Your task to perform on an android device: Open wifi settings Image 0: 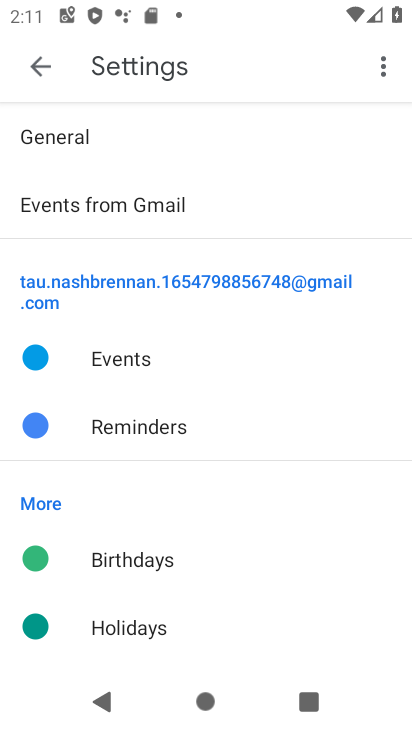
Step 0: press home button
Your task to perform on an android device: Open wifi settings Image 1: 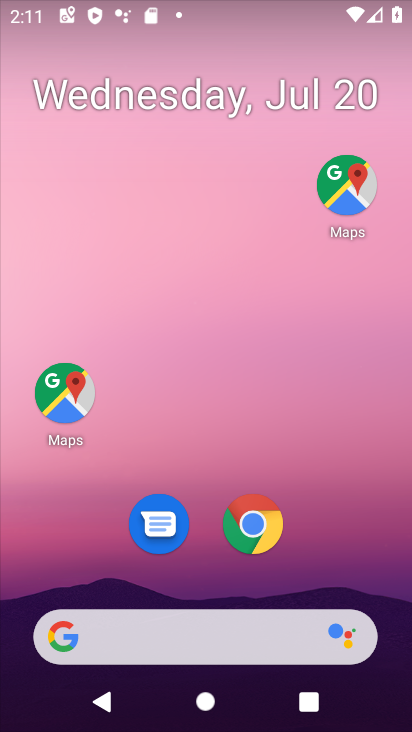
Step 1: drag from (323, 541) to (409, 55)
Your task to perform on an android device: Open wifi settings Image 2: 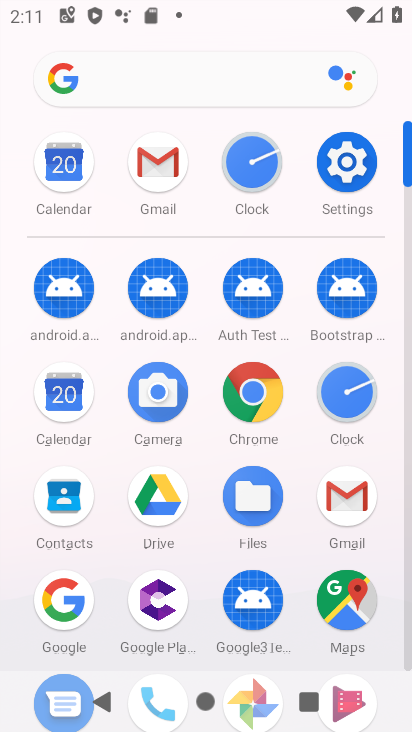
Step 2: click (346, 148)
Your task to perform on an android device: Open wifi settings Image 3: 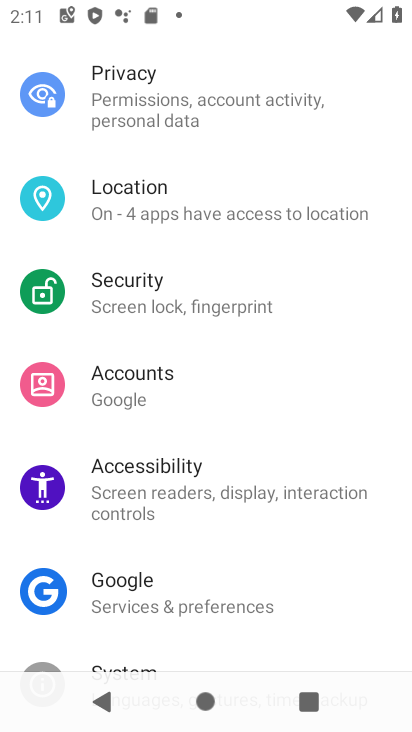
Step 3: drag from (244, 183) to (177, 552)
Your task to perform on an android device: Open wifi settings Image 4: 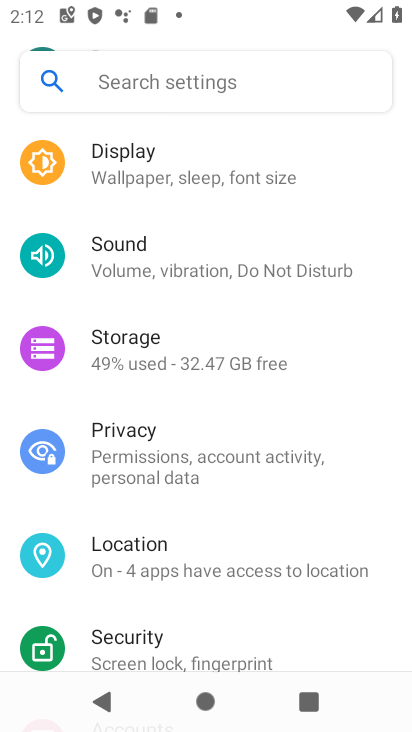
Step 4: drag from (213, 269) to (200, 570)
Your task to perform on an android device: Open wifi settings Image 5: 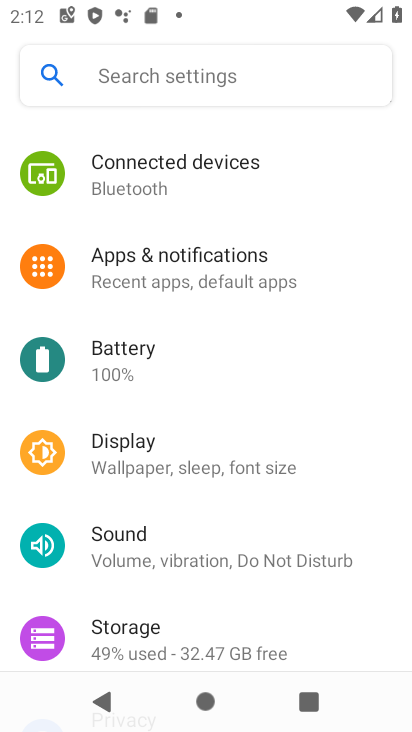
Step 5: drag from (201, 262) to (245, 540)
Your task to perform on an android device: Open wifi settings Image 6: 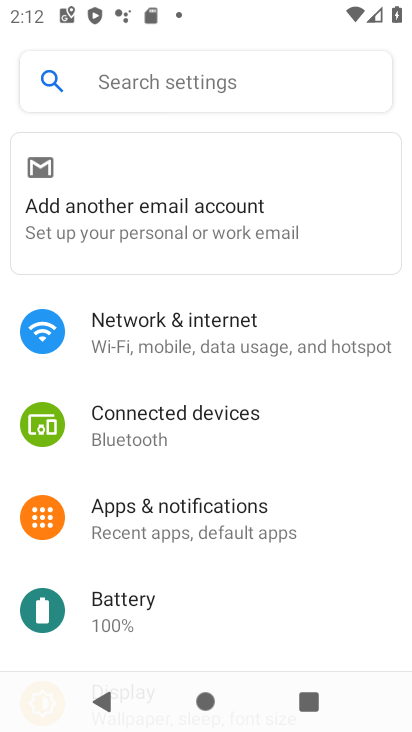
Step 6: click (219, 340)
Your task to perform on an android device: Open wifi settings Image 7: 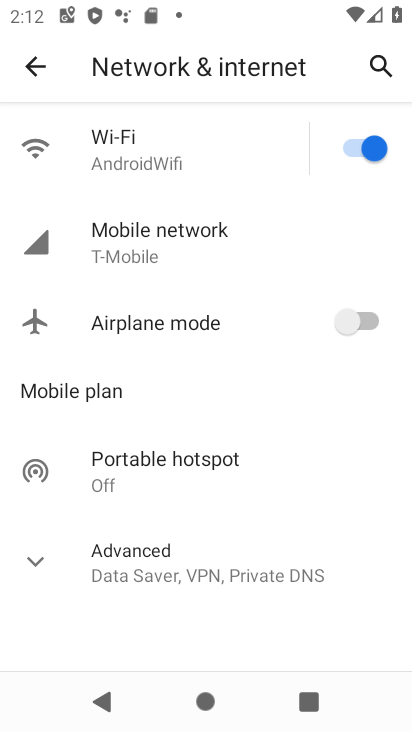
Step 7: click (179, 126)
Your task to perform on an android device: Open wifi settings Image 8: 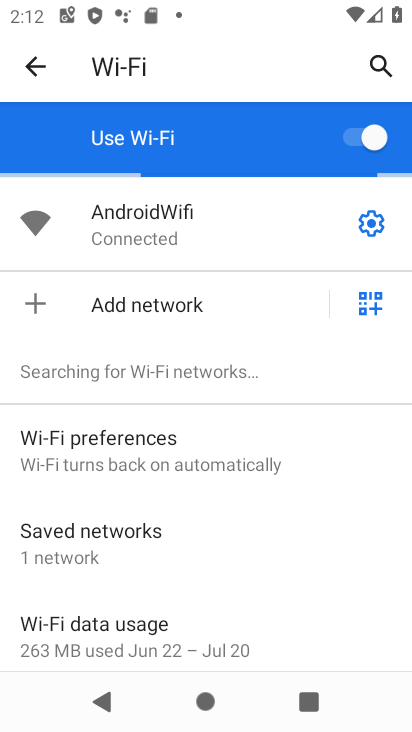
Step 8: task complete